Your task to perform on an android device: Open the stopwatch Image 0: 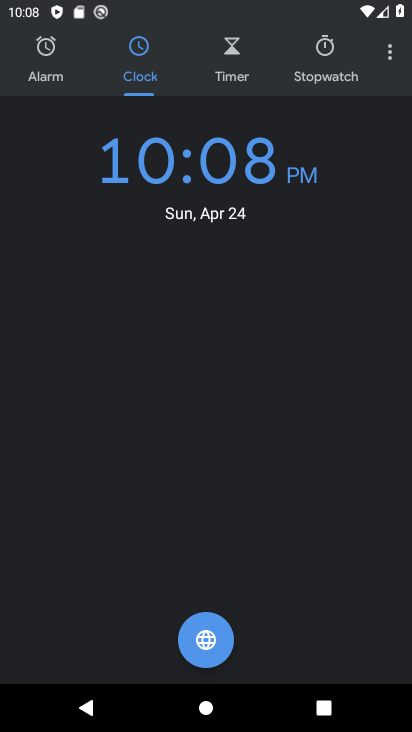
Step 0: press home button
Your task to perform on an android device: Open the stopwatch Image 1: 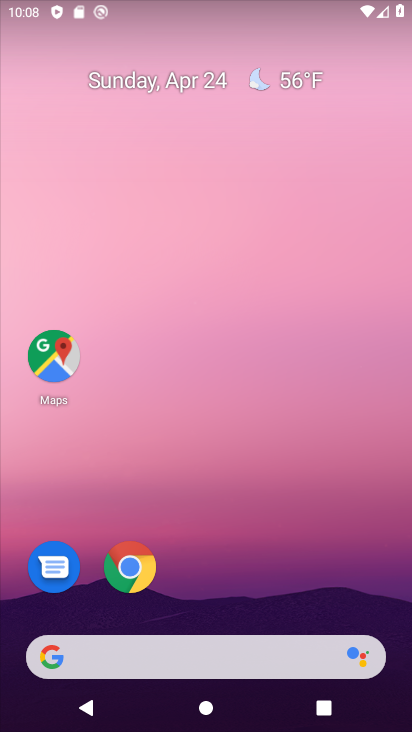
Step 1: drag from (133, 663) to (332, 87)
Your task to perform on an android device: Open the stopwatch Image 2: 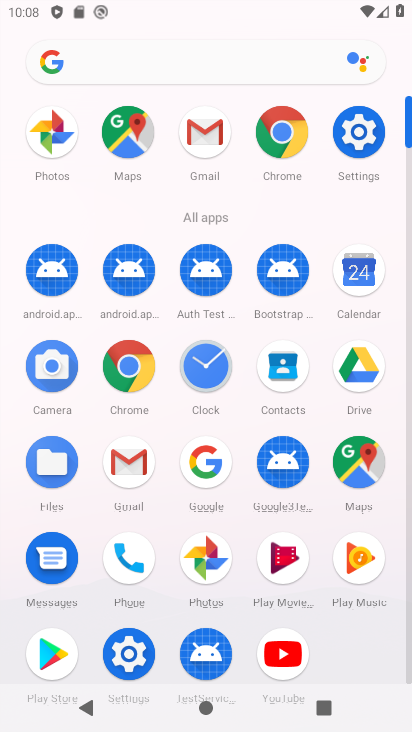
Step 2: click (209, 377)
Your task to perform on an android device: Open the stopwatch Image 3: 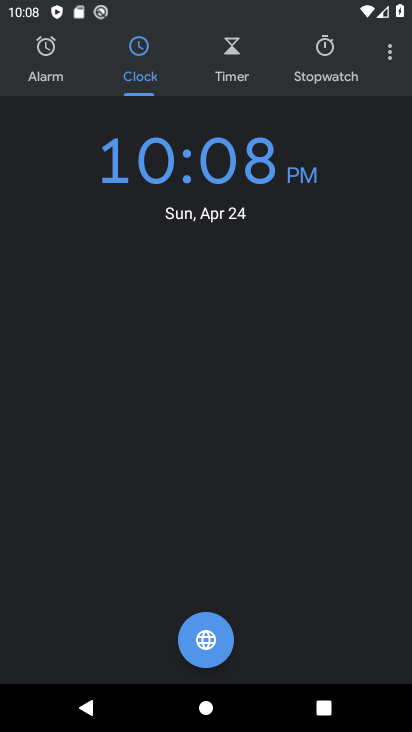
Step 3: click (329, 54)
Your task to perform on an android device: Open the stopwatch Image 4: 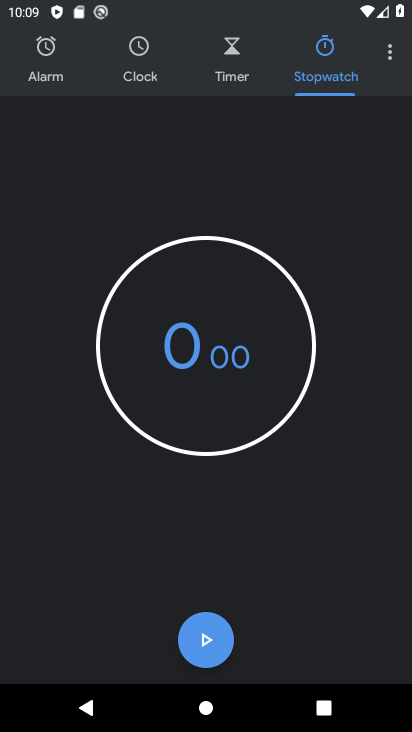
Step 4: task complete